Your task to perform on an android device: set the stopwatch Image 0: 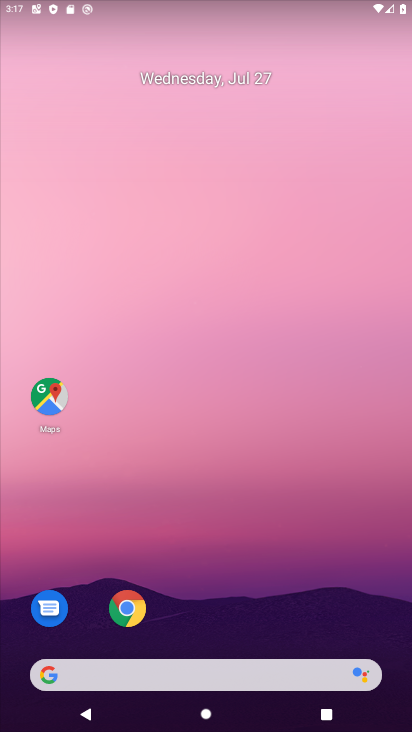
Step 0: drag from (394, 692) to (303, 104)
Your task to perform on an android device: set the stopwatch Image 1: 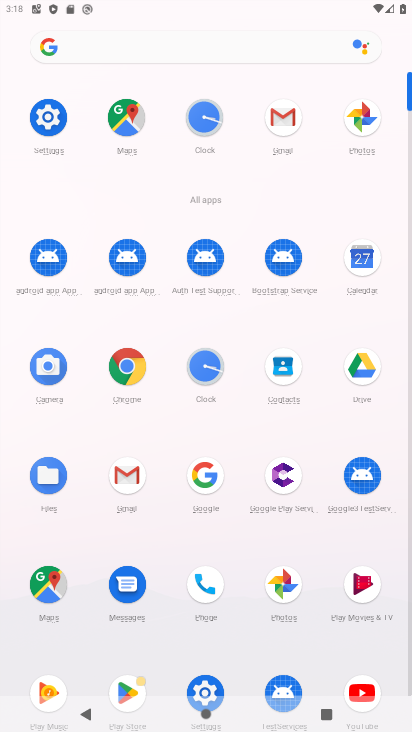
Step 1: click (205, 114)
Your task to perform on an android device: set the stopwatch Image 2: 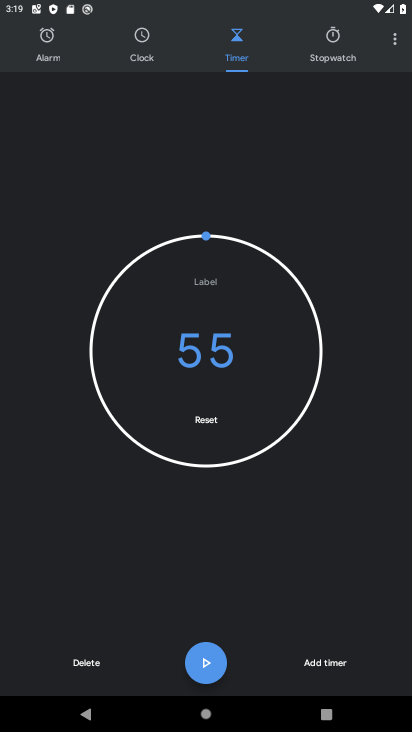
Step 2: click (328, 38)
Your task to perform on an android device: set the stopwatch Image 3: 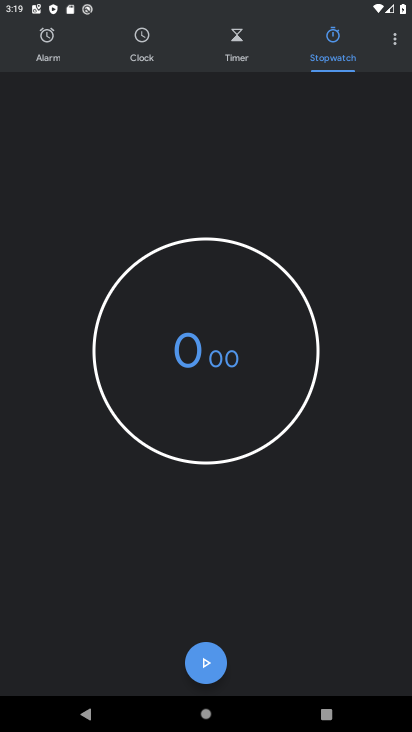
Step 3: task complete